Your task to perform on an android device: change notifications settings Image 0: 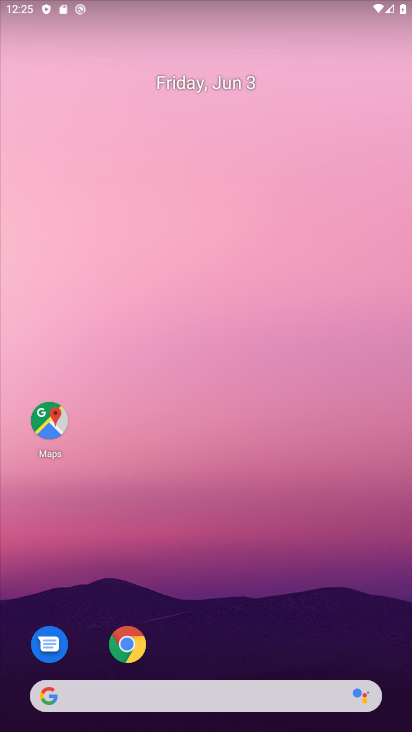
Step 0: drag from (243, 728) to (256, 64)
Your task to perform on an android device: change notifications settings Image 1: 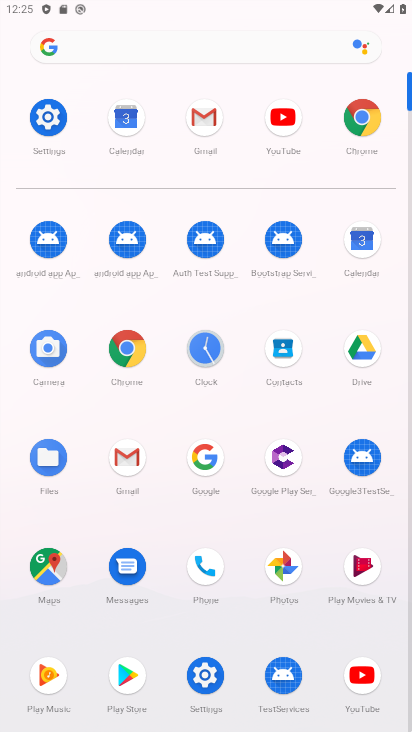
Step 1: click (42, 110)
Your task to perform on an android device: change notifications settings Image 2: 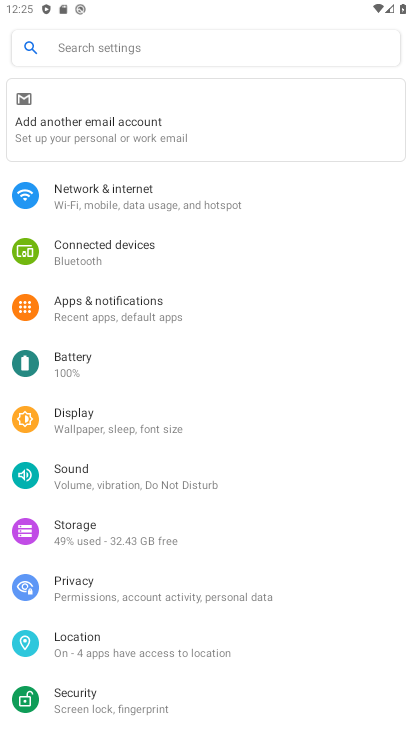
Step 2: click (139, 303)
Your task to perform on an android device: change notifications settings Image 3: 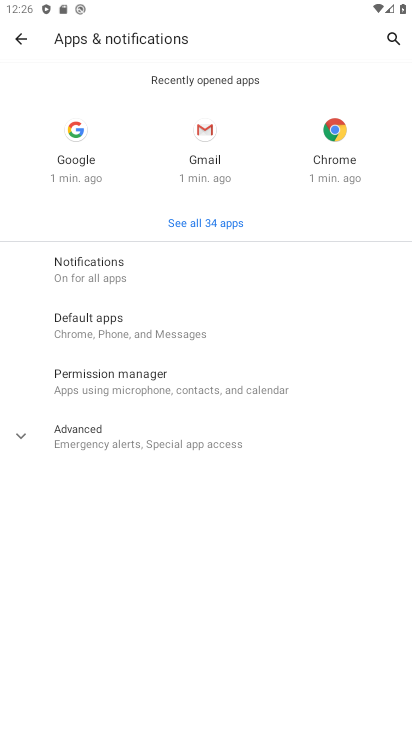
Step 3: click (89, 266)
Your task to perform on an android device: change notifications settings Image 4: 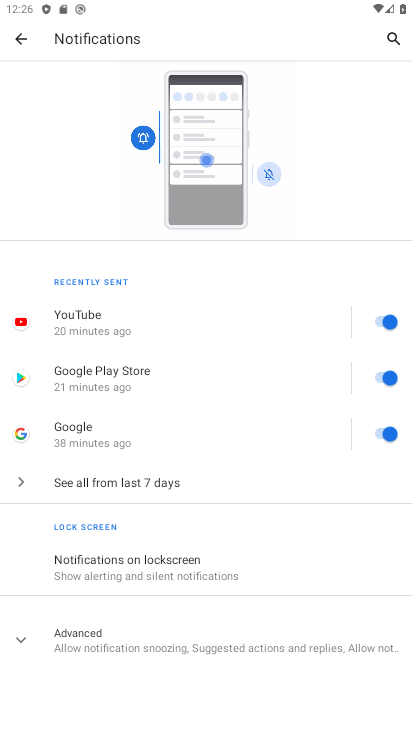
Step 4: click (144, 643)
Your task to perform on an android device: change notifications settings Image 5: 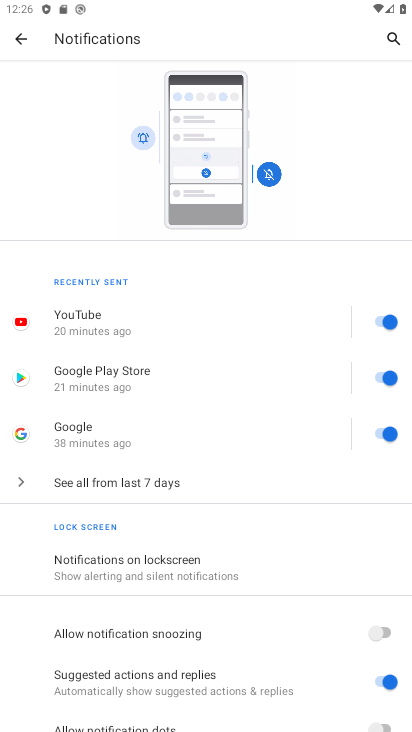
Step 5: click (386, 630)
Your task to perform on an android device: change notifications settings Image 6: 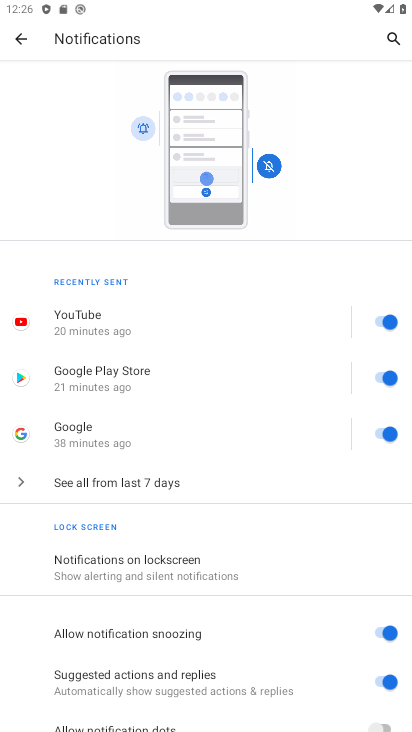
Step 6: task complete